Your task to perform on an android device: choose inbox layout in the gmail app Image 0: 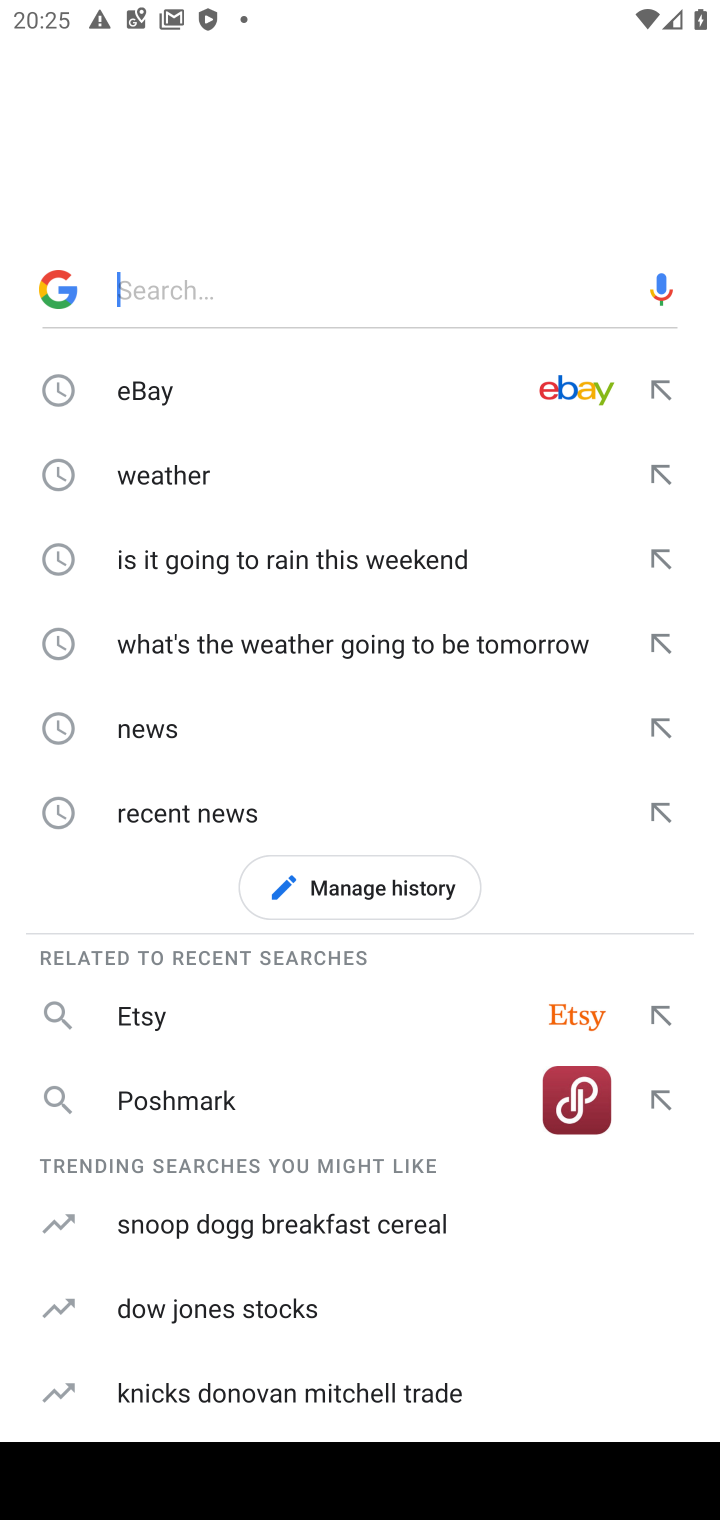
Step 0: press home button
Your task to perform on an android device: choose inbox layout in the gmail app Image 1: 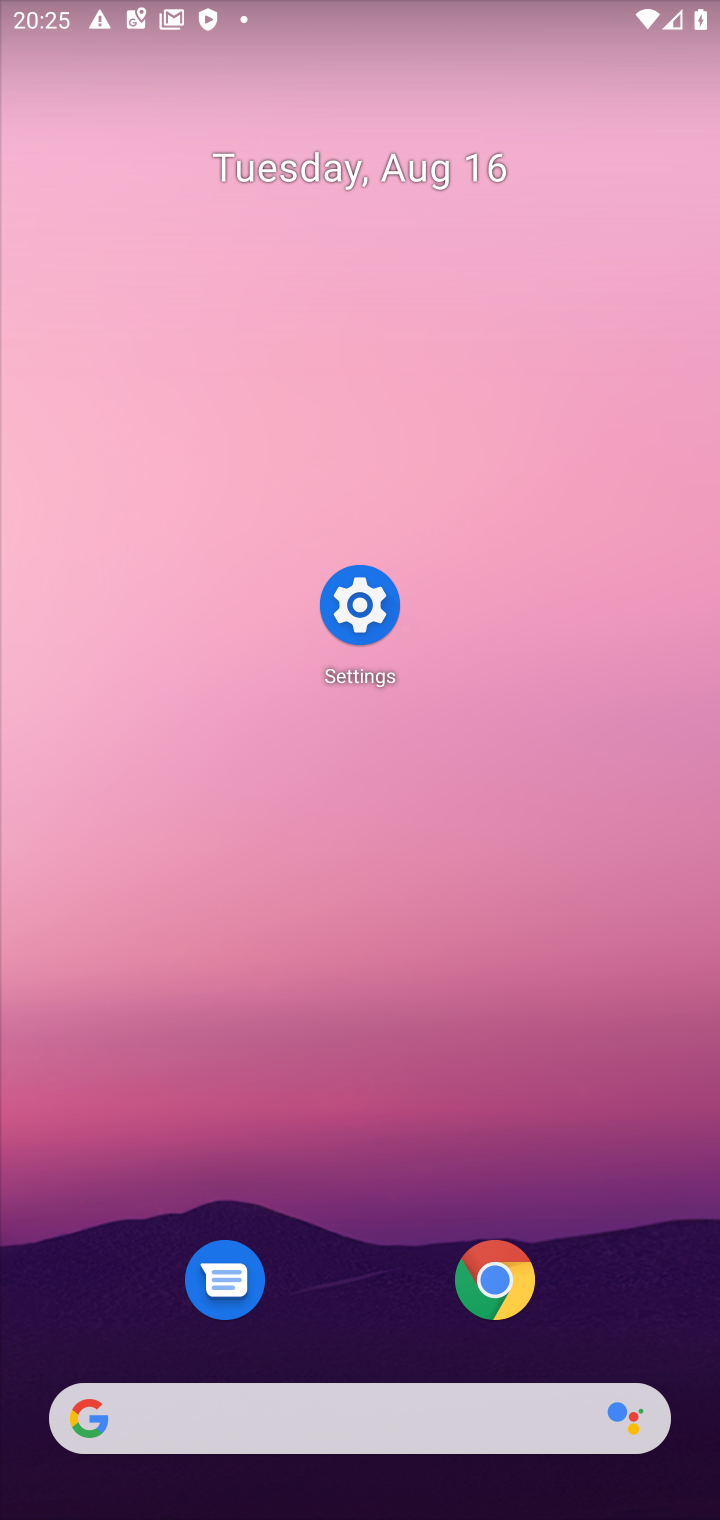
Step 1: drag from (344, 1006) to (406, 535)
Your task to perform on an android device: choose inbox layout in the gmail app Image 2: 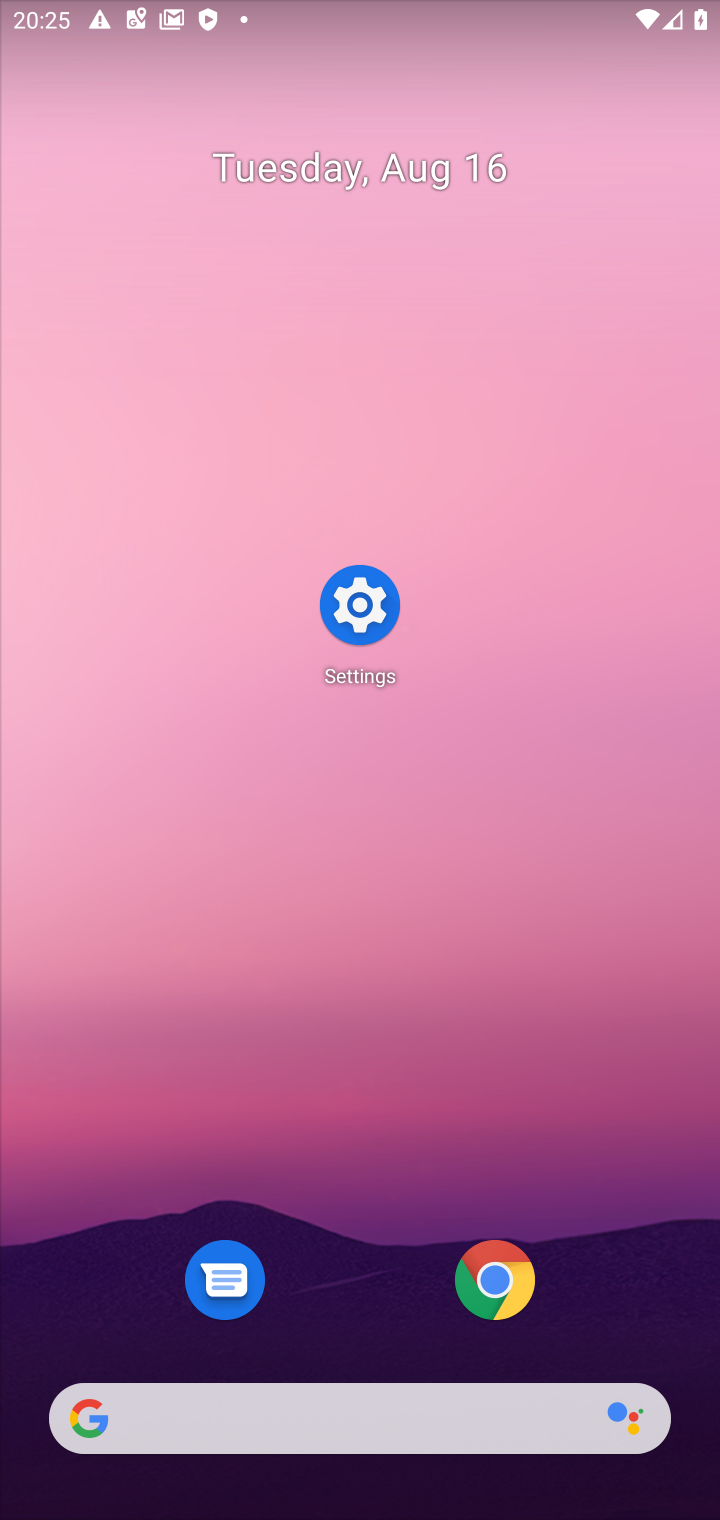
Step 2: drag from (349, 1167) to (555, 12)
Your task to perform on an android device: choose inbox layout in the gmail app Image 3: 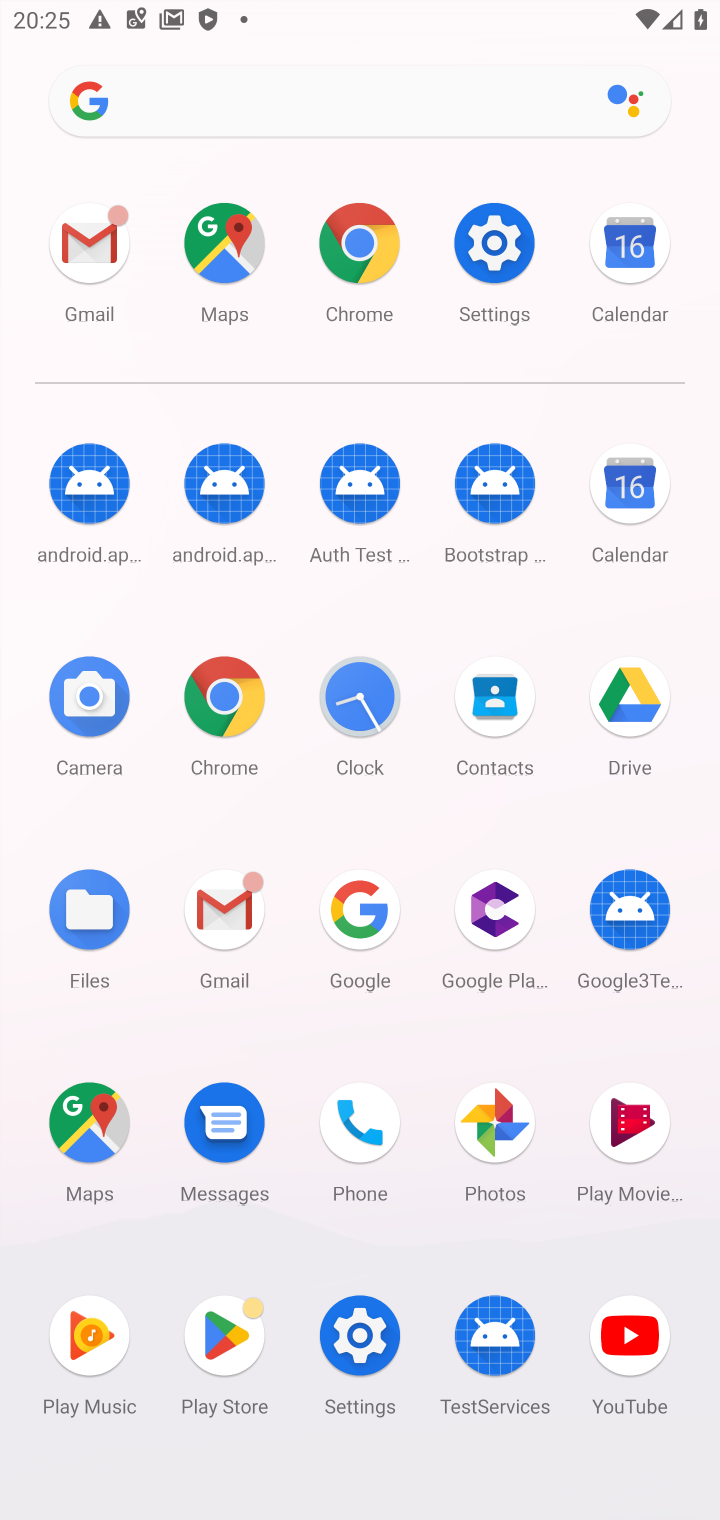
Step 3: click (225, 888)
Your task to perform on an android device: choose inbox layout in the gmail app Image 4: 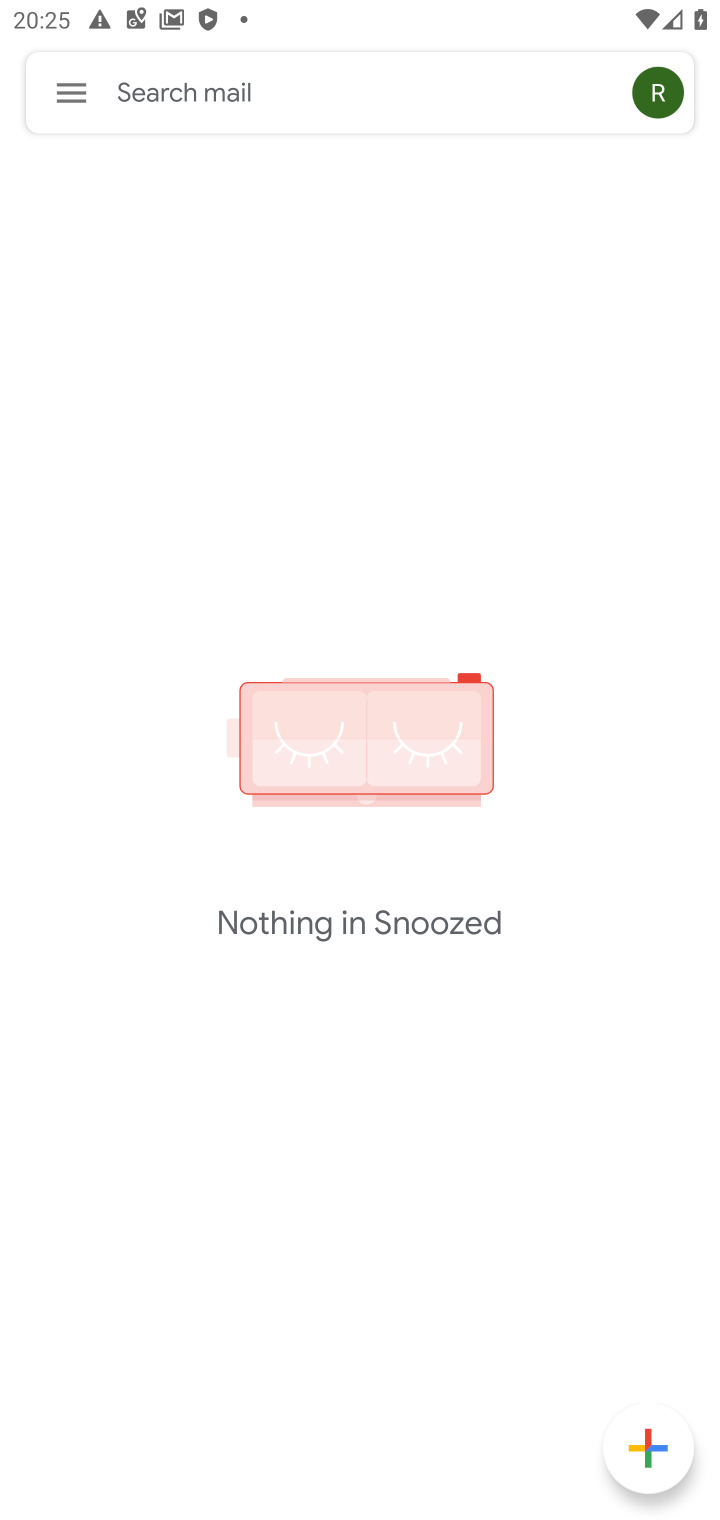
Step 4: click (61, 91)
Your task to perform on an android device: choose inbox layout in the gmail app Image 5: 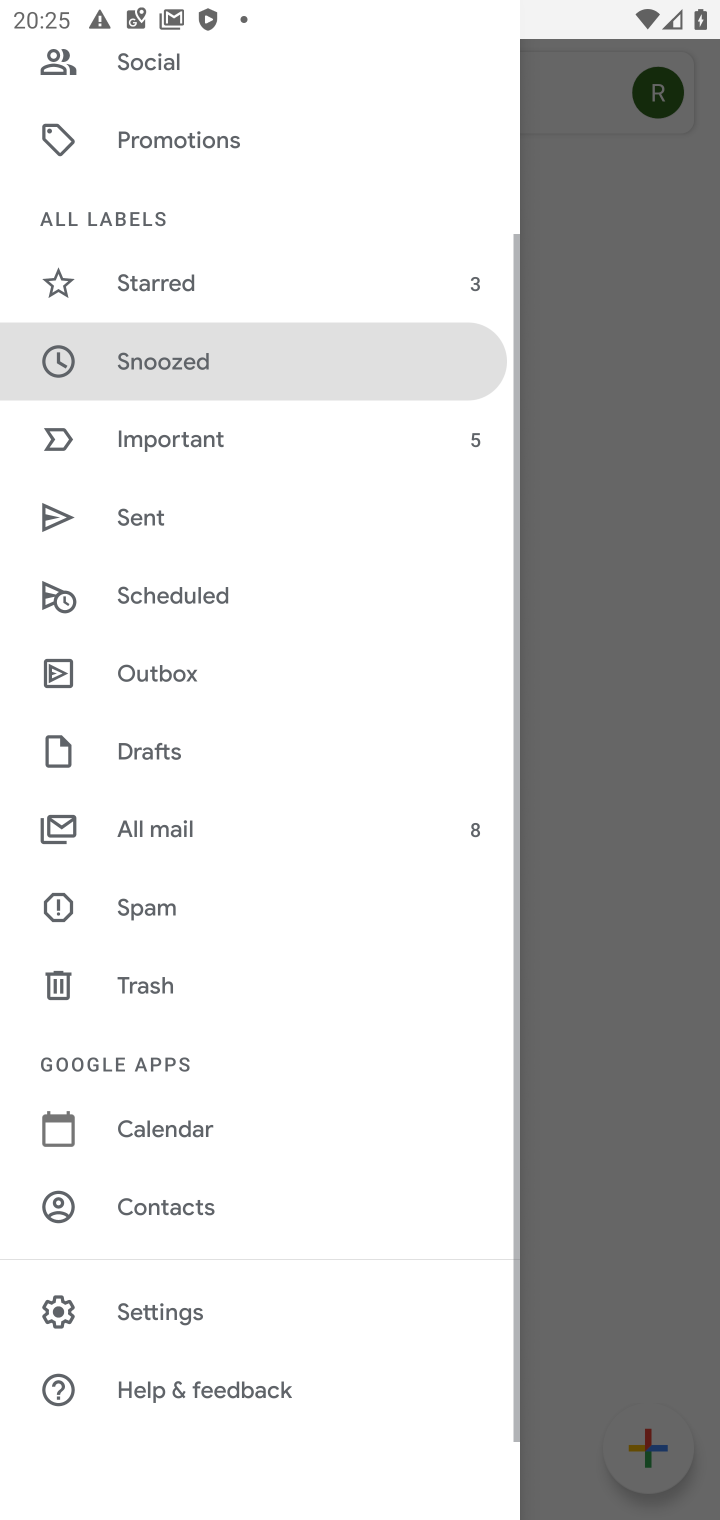
Step 5: click (157, 1301)
Your task to perform on an android device: choose inbox layout in the gmail app Image 6: 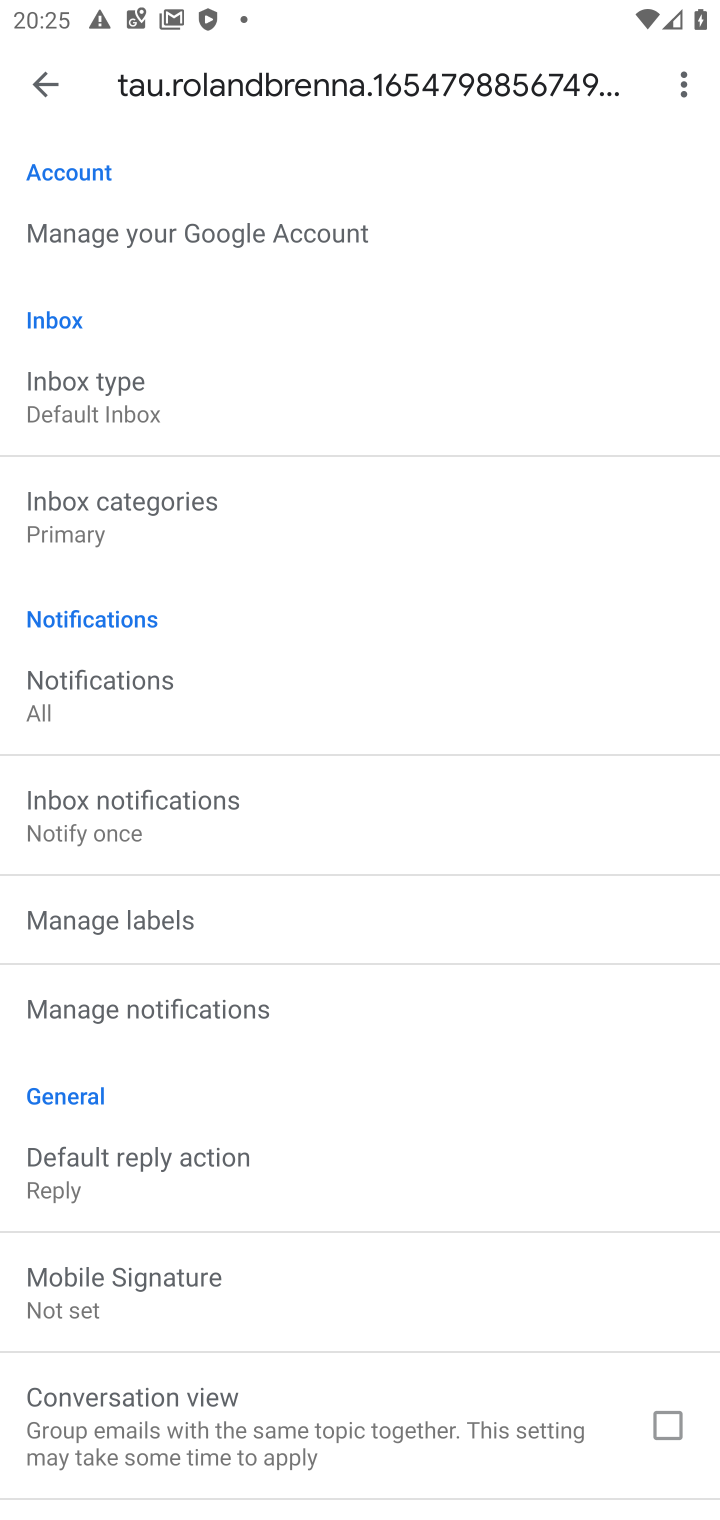
Step 6: click (162, 419)
Your task to perform on an android device: choose inbox layout in the gmail app Image 7: 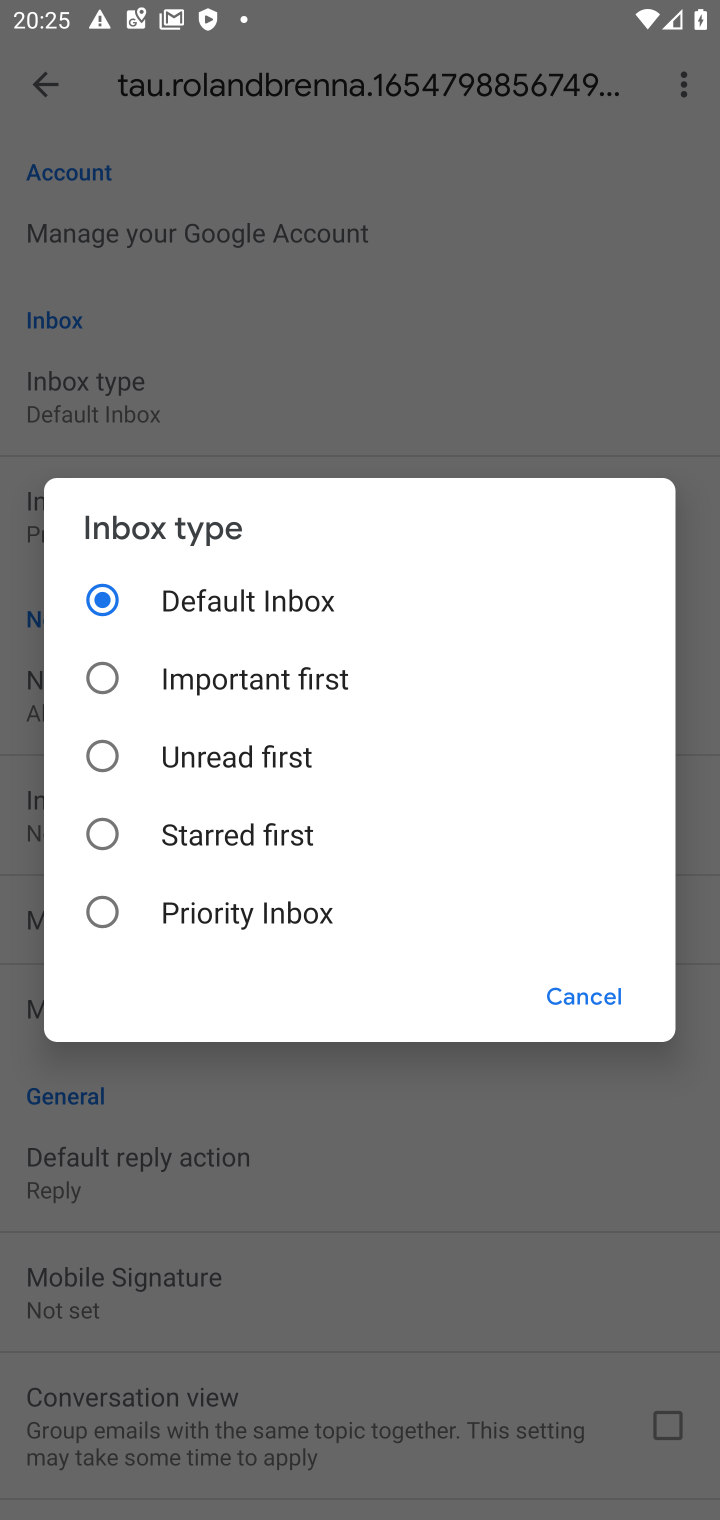
Step 7: click (258, 662)
Your task to perform on an android device: choose inbox layout in the gmail app Image 8: 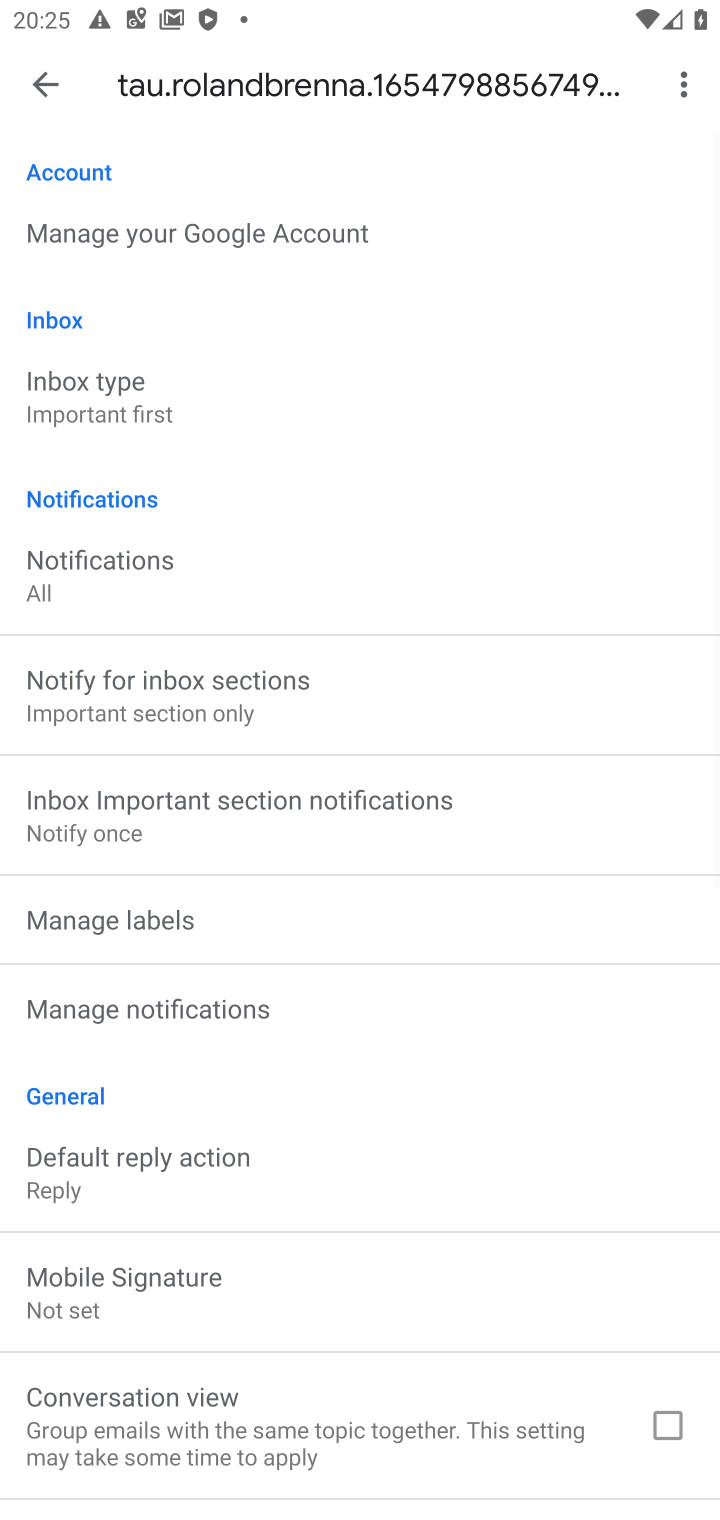
Step 8: task complete